Your task to perform on an android device: Go to Google Image 0: 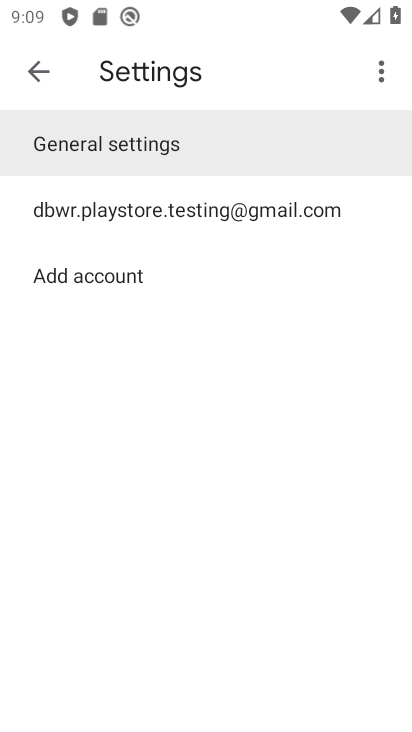
Step 0: press back button
Your task to perform on an android device: Go to Google Image 1: 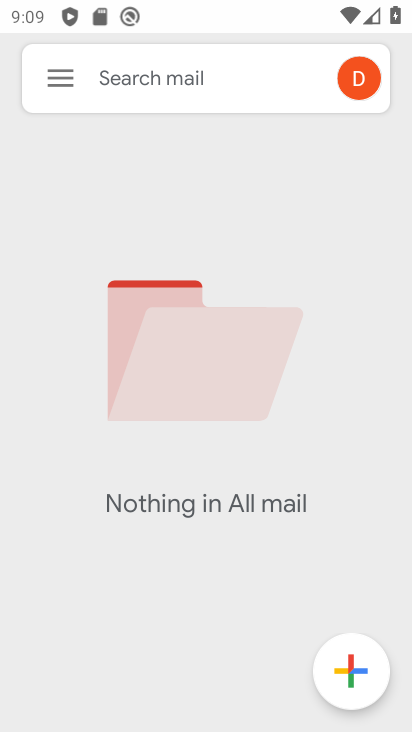
Step 1: press back button
Your task to perform on an android device: Go to Google Image 2: 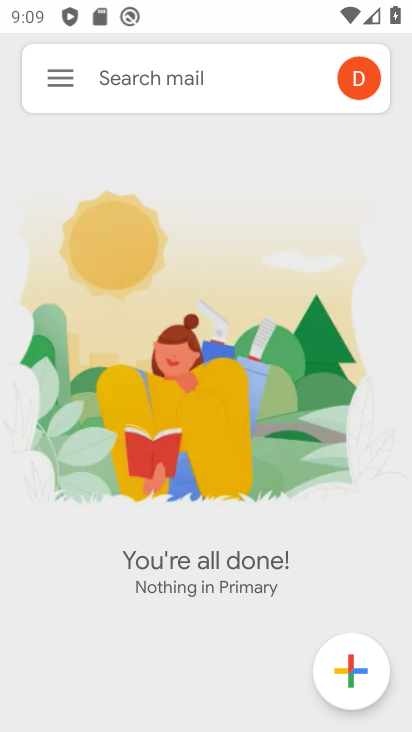
Step 2: press back button
Your task to perform on an android device: Go to Google Image 3: 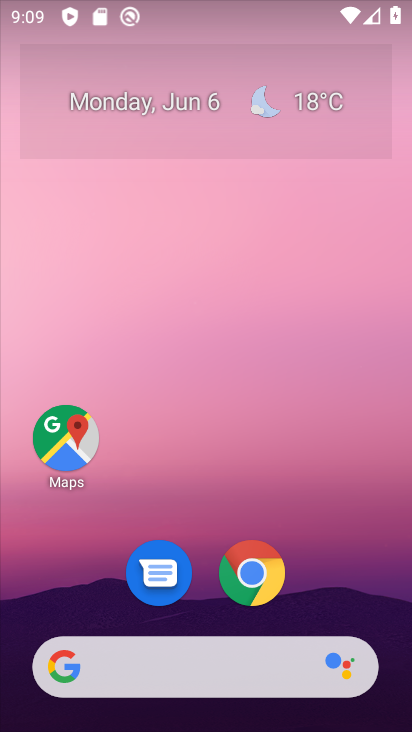
Step 3: drag from (226, 514) to (283, 37)
Your task to perform on an android device: Go to Google Image 4: 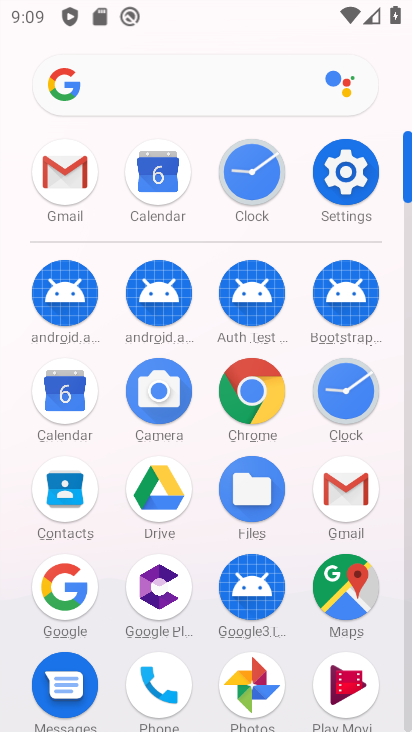
Step 4: click (72, 578)
Your task to perform on an android device: Go to Google Image 5: 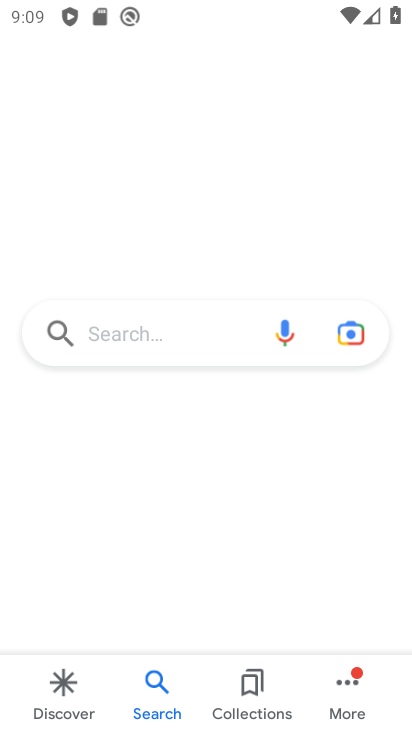
Step 5: task complete